Your task to perform on an android device: create a new album in the google photos Image 0: 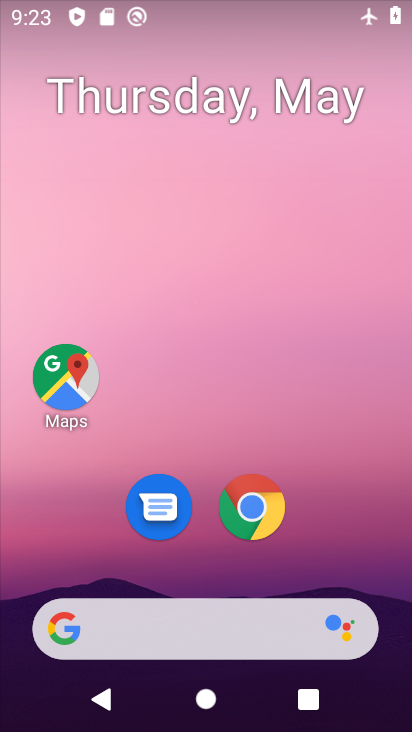
Step 0: drag from (232, 625) to (249, 152)
Your task to perform on an android device: create a new album in the google photos Image 1: 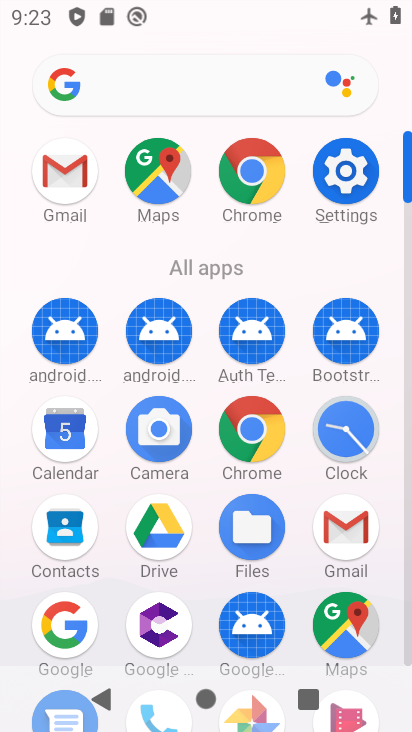
Step 1: drag from (273, 557) to (306, 203)
Your task to perform on an android device: create a new album in the google photos Image 2: 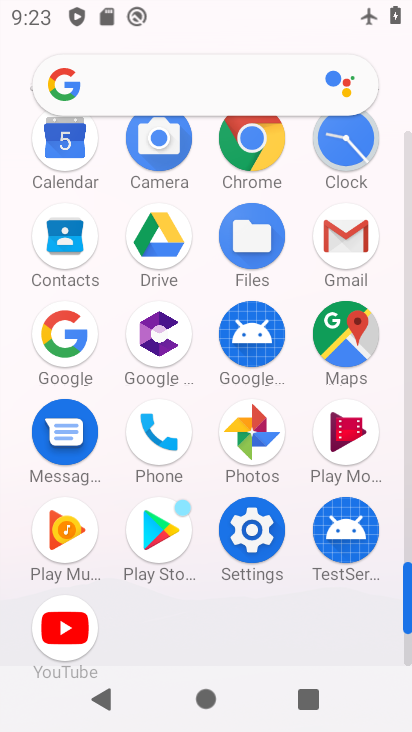
Step 2: click (243, 437)
Your task to perform on an android device: create a new album in the google photos Image 3: 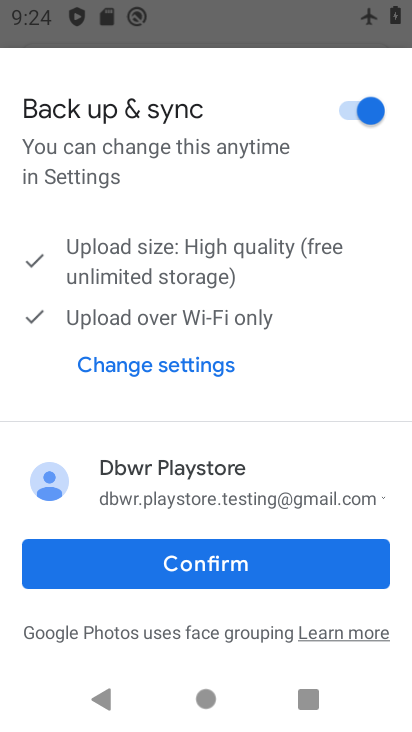
Step 3: click (241, 583)
Your task to perform on an android device: create a new album in the google photos Image 4: 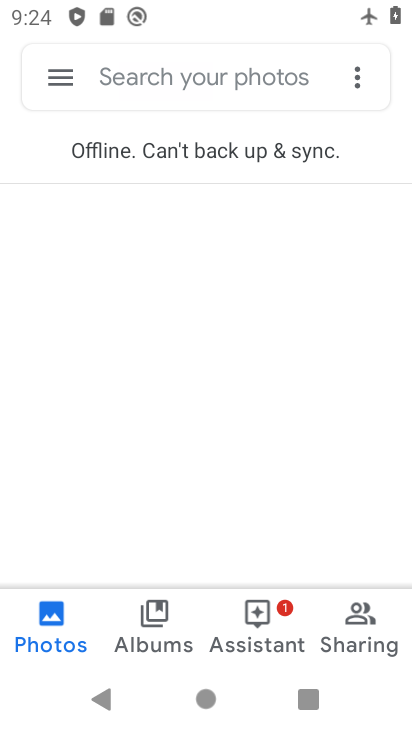
Step 4: click (164, 644)
Your task to perform on an android device: create a new album in the google photos Image 5: 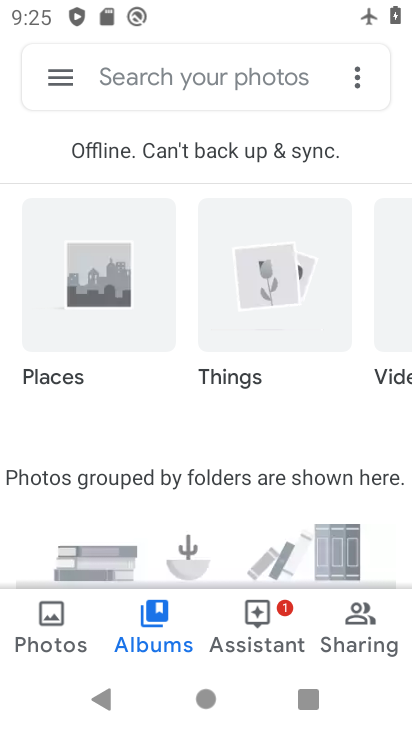
Step 5: drag from (190, 532) to (244, 153)
Your task to perform on an android device: create a new album in the google photos Image 6: 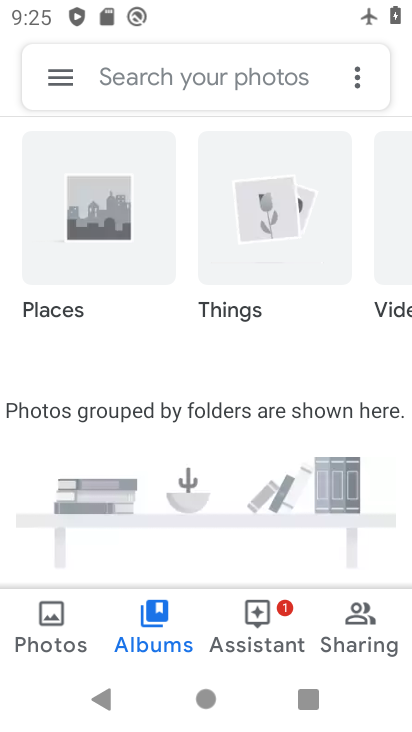
Step 6: drag from (240, 346) to (242, 143)
Your task to perform on an android device: create a new album in the google photos Image 7: 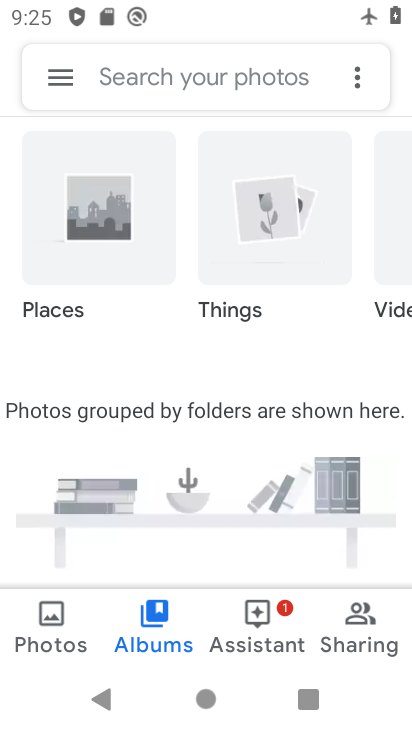
Step 7: drag from (242, 316) to (245, 86)
Your task to perform on an android device: create a new album in the google photos Image 8: 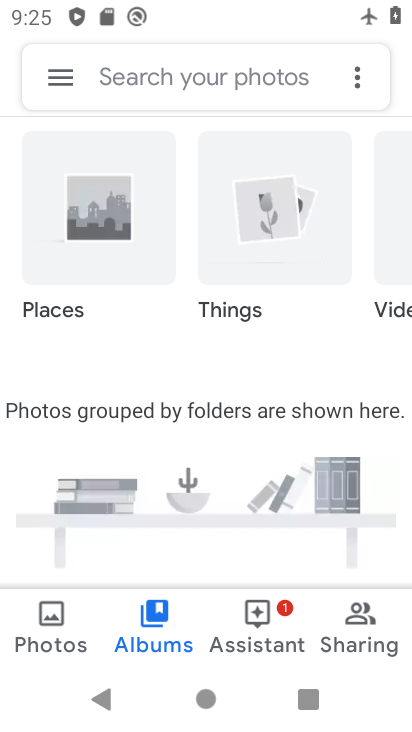
Step 8: click (363, 80)
Your task to perform on an android device: create a new album in the google photos Image 9: 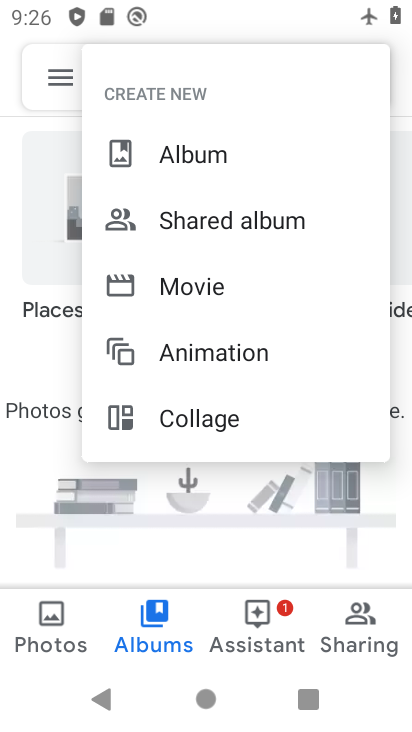
Step 9: task complete